Your task to perform on an android device: Open the Play Movies app and select the watchlist tab. Image 0: 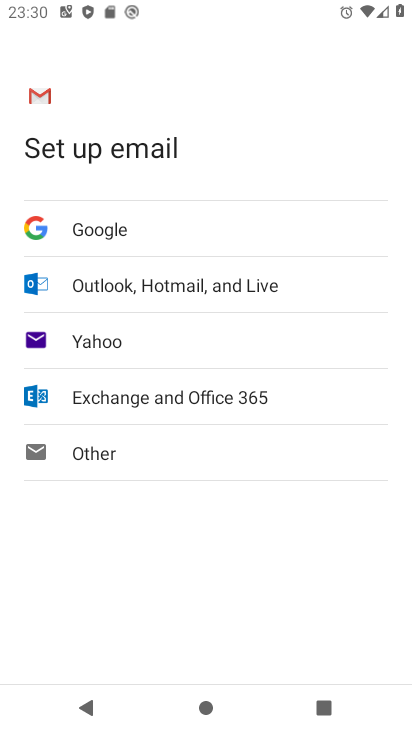
Step 0: press home button
Your task to perform on an android device: Open the Play Movies app and select the watchlist tab. Image 1: 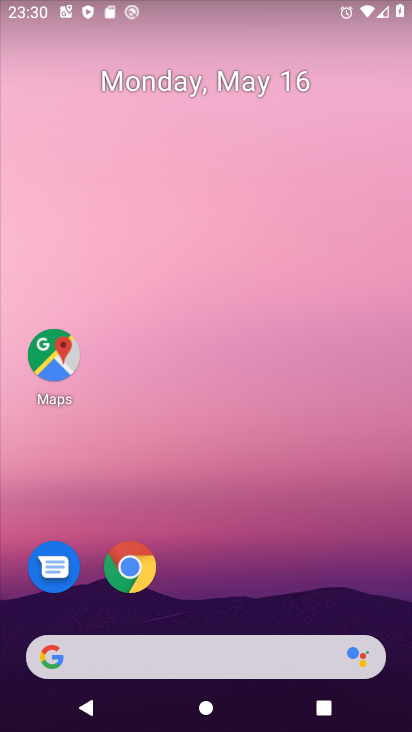
Step 1: drag from (268, 582) to (174, 153)
Your task to perform on an android device: Open the Play Movies app and select the watchlist tab. Image 2: 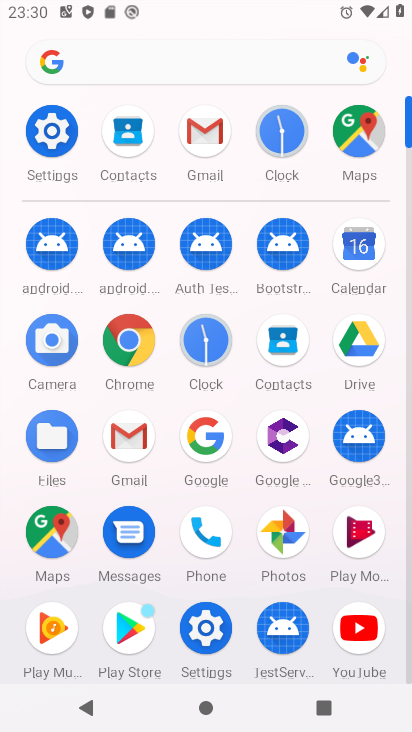
Step 2: click (360, 545)
Your task to perform on an android device: Open the Play Movies app and select the watchlist tab. Image 3: 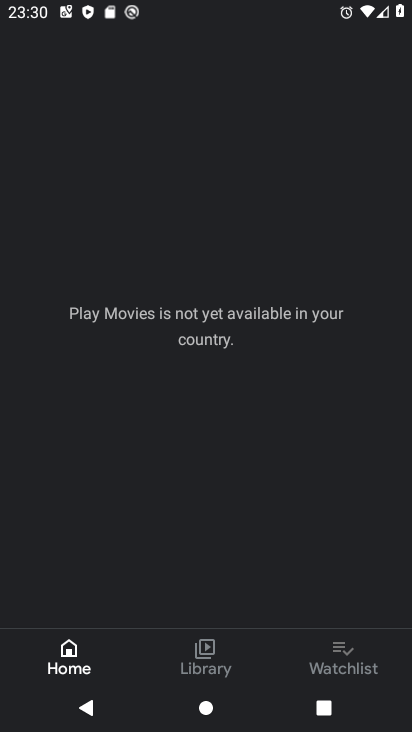
Step 3: click (342, 647)
Your task to perform on an android device: Open the Play Movies app and select the watchlist tab. Image 4: 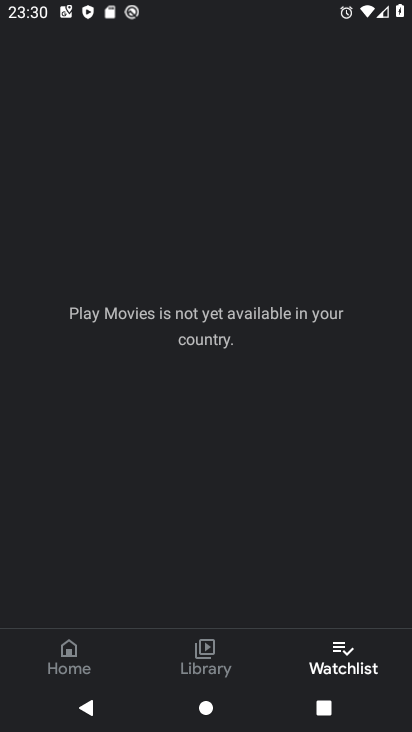
Step 4: task complete